Your task to perform on an android device: Go to CNN.com Image 0: 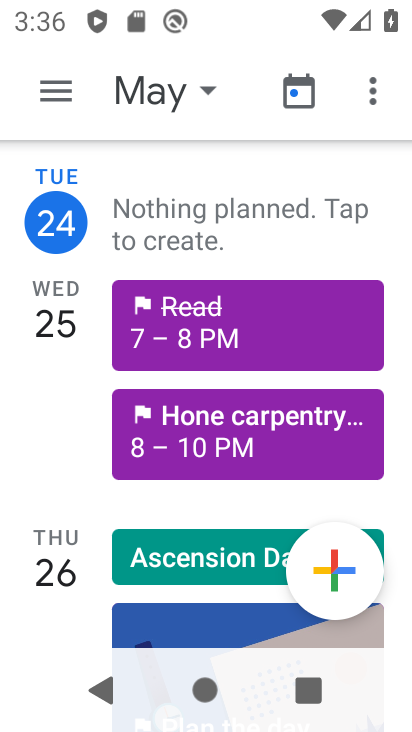
Step 0: drag from (348, 494) to (411, 349)
Your task to perform on an android device: Go to CNN.com Image 1: 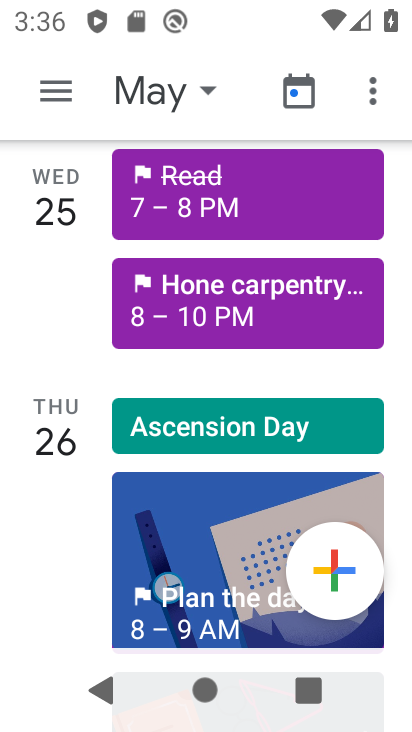
Step 1: press home button
Your task to perform on an android device: Go to CNN.com Image 2: 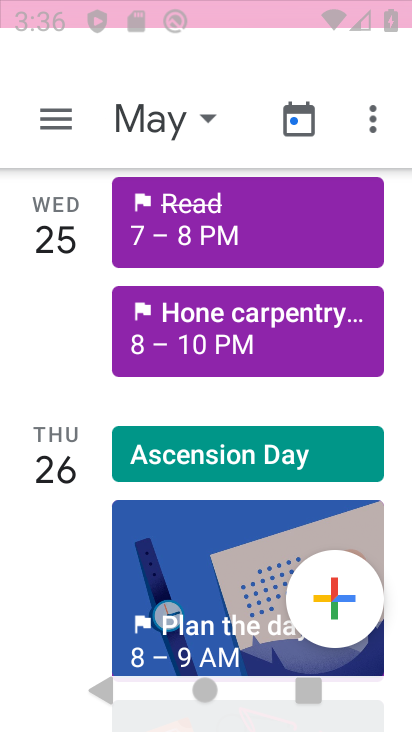
Step 2: drag from (411, 349) to (407, 469)
Your task to perform on an android device: Go to CNN.com Image 3: 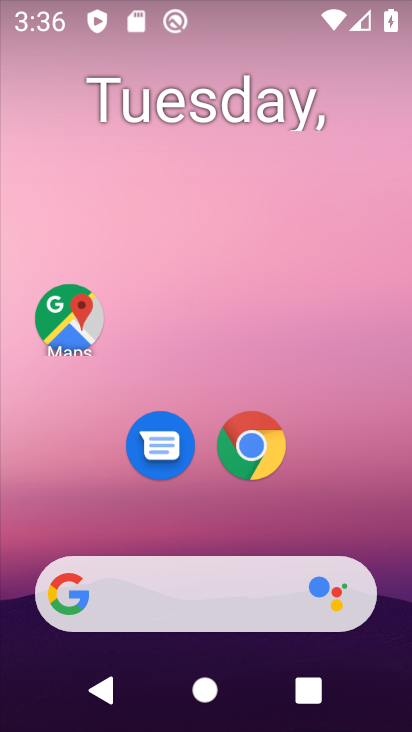
Step 3: click (265, 459)
Your task to perform on an android device: Go to CNN.com Image 4: 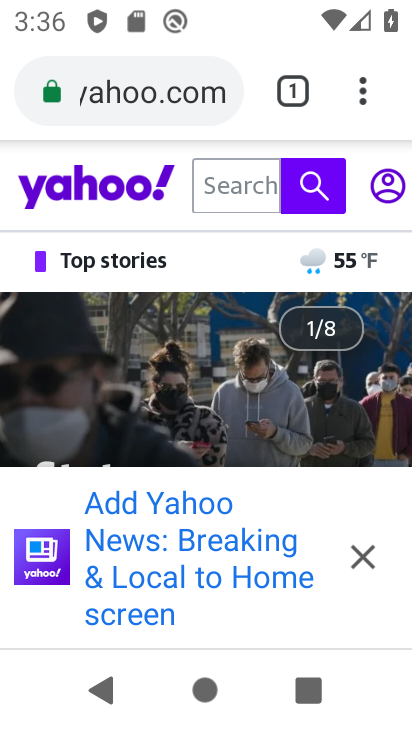
Step 4: click (289, 94)
Your task to perform on an android device: Go to CNN.com Image 5: 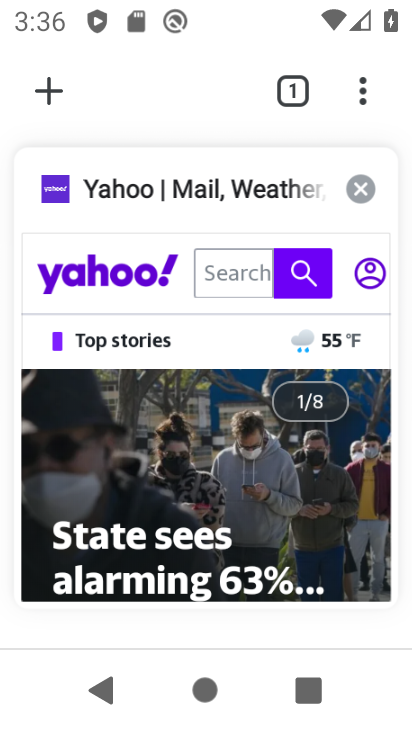
Step 5: click (363, 186)
Your task to perform on an android device: Go to CNN.com Image 6: 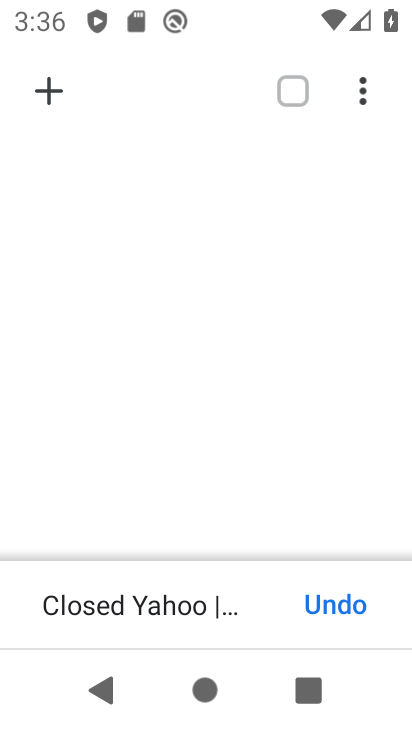
Step 6: click (63, 111)
Your task to perform on an android device: Go to CNN.com Image 7: 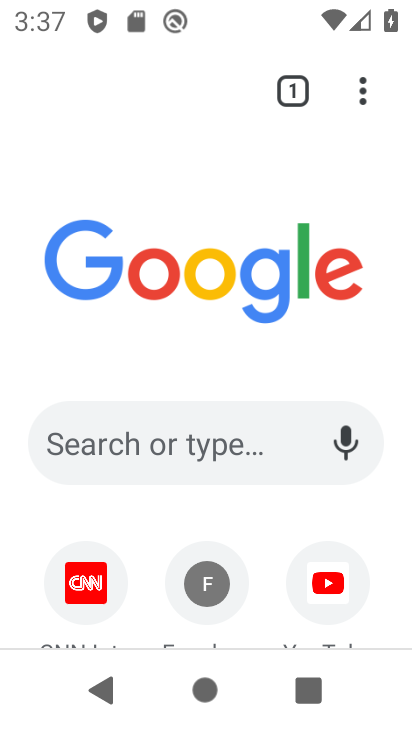
Step 7: click (72, 578)
Your task to perform on an android device: Go to CNN.com Image 8: 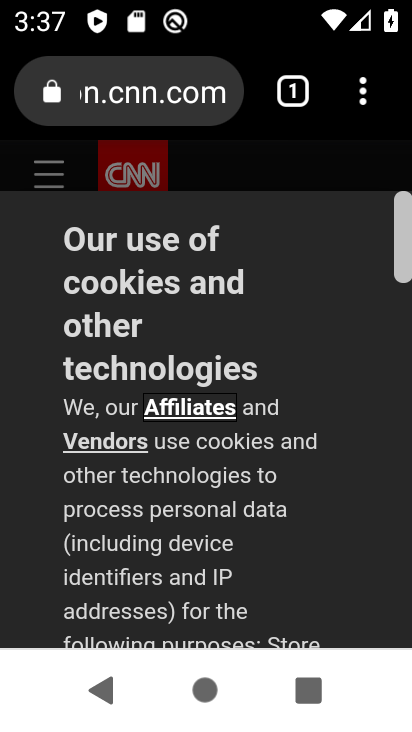
Step 8: task complete